Your task to perform on an android device: Search for apple airpods on newegg, select the first entry, and add it to the cart. Image 0: 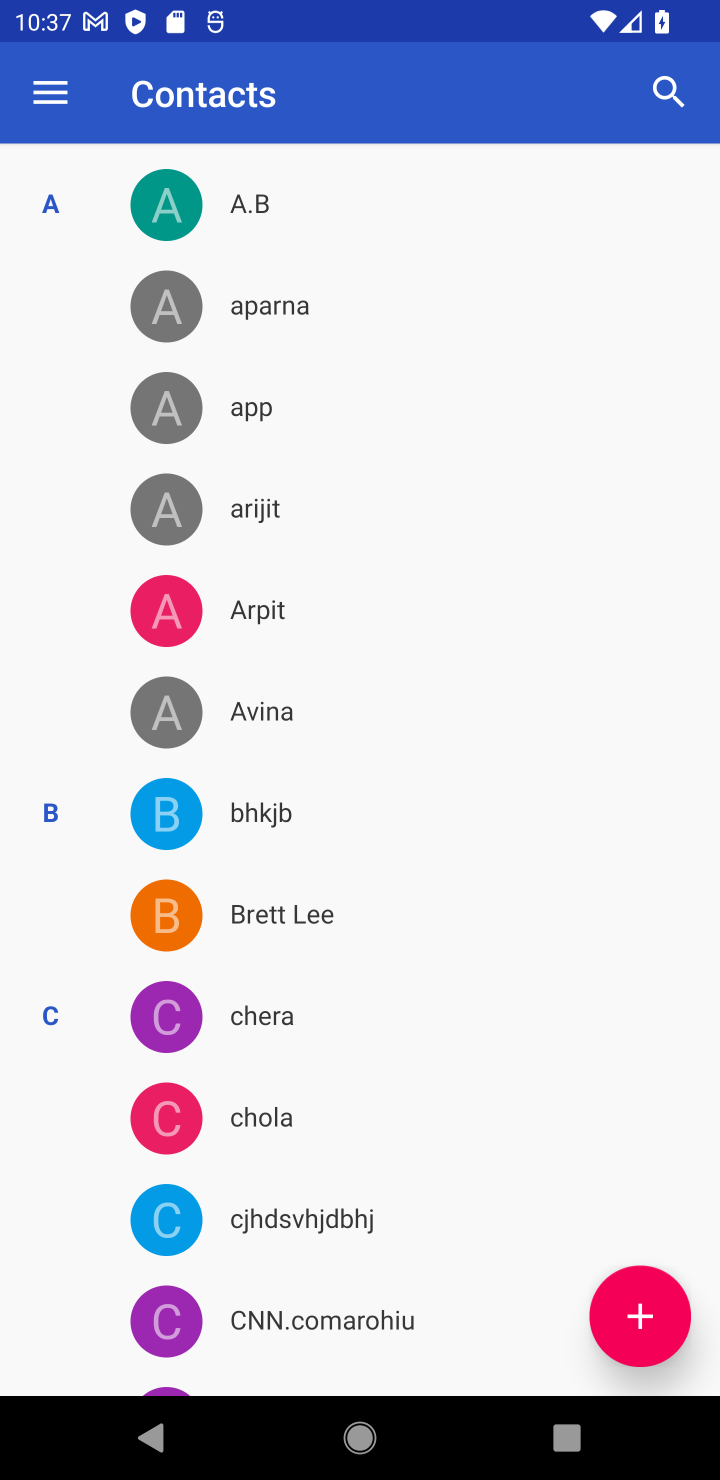
Step 0: press home button
Your task to perform on an android device: Search for apple airpods on newegg, select the first entry, and add it to the cart. Image 1: 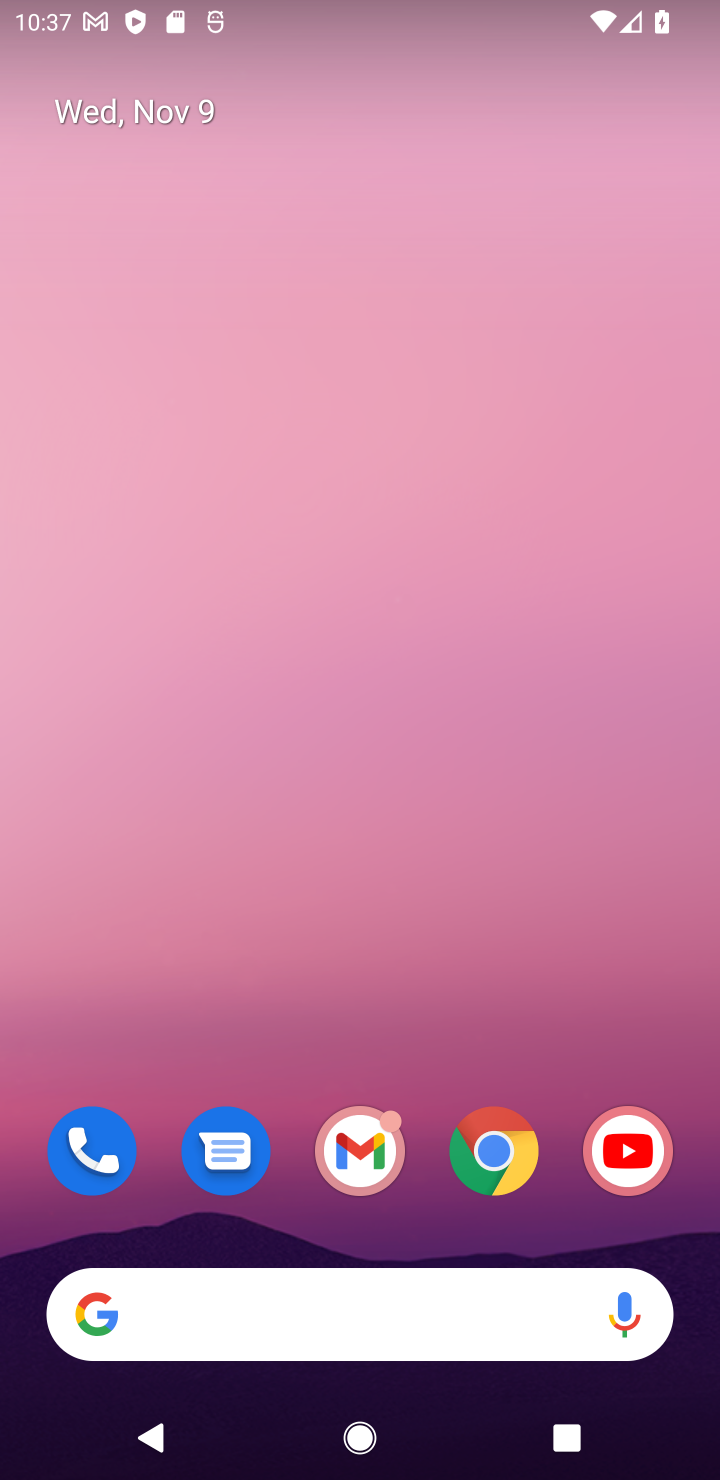
Step 1: click (506, 1160)
Your task to perform on an android device: Search for apple airpods on newegg, select the first entry, and add it to the cart. Image 2: 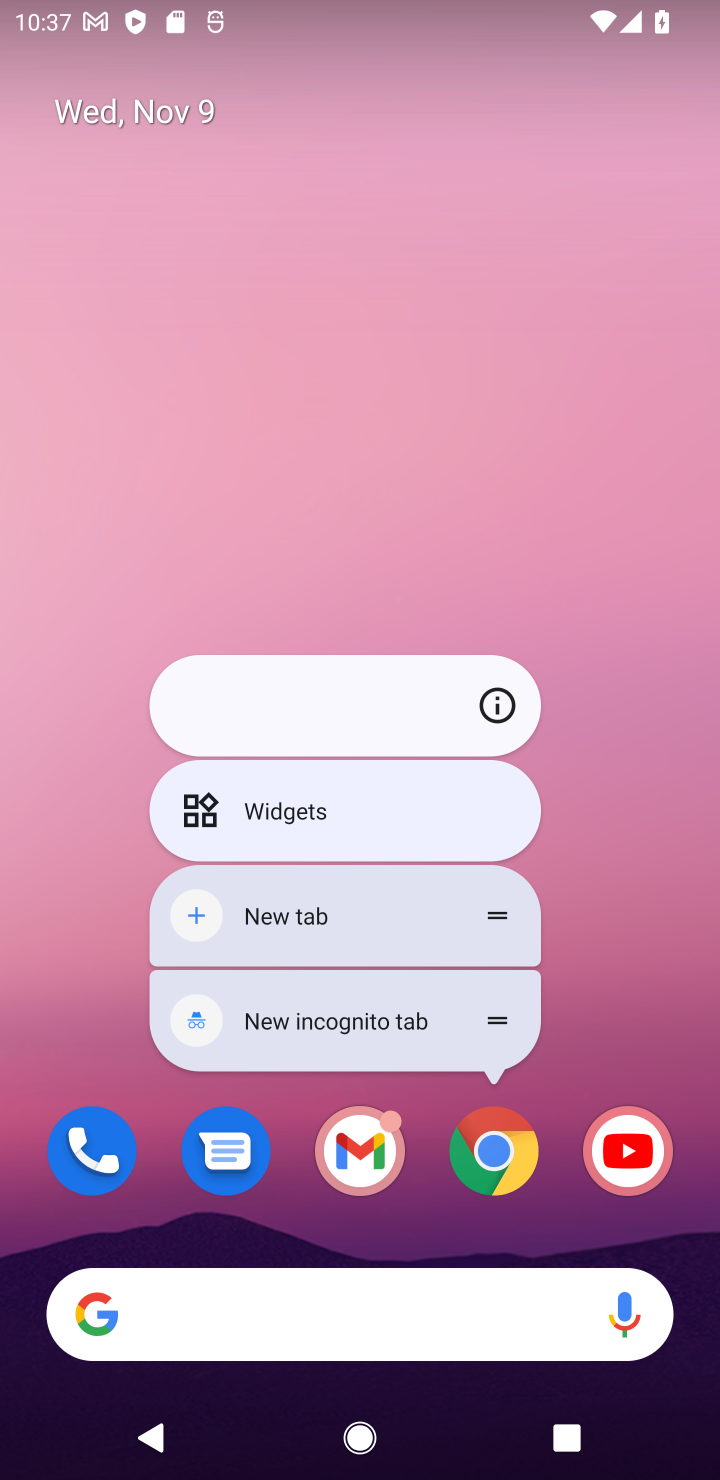
Step 2: click (506, 1160)
Your task to perform on an android device: Search for apple airpods on newegg, select the first entry, and add it to the cart. Image 3: 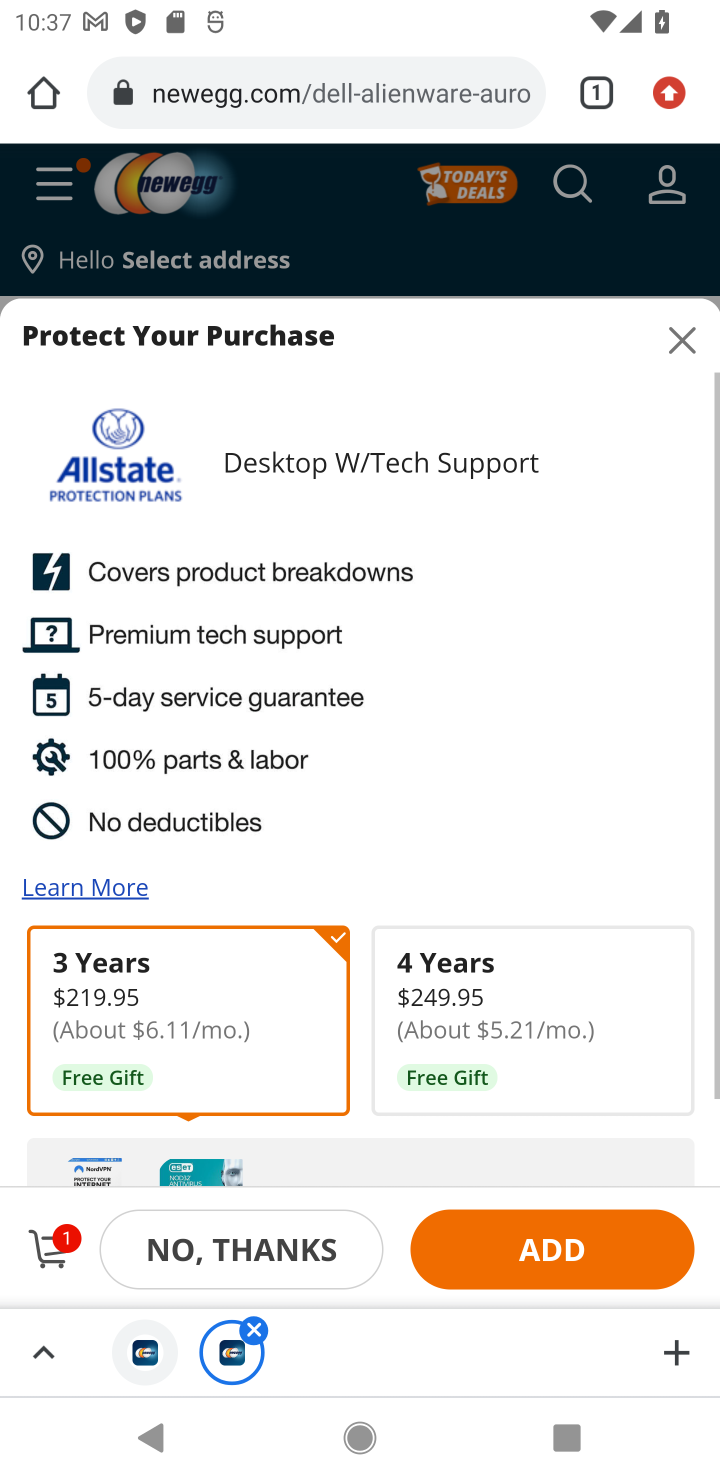
Step 3: click (678, 344)
Your task to perform on an android device: Search for apple airpods on newegg, select the first entry, and add it to the cart. Image 4: 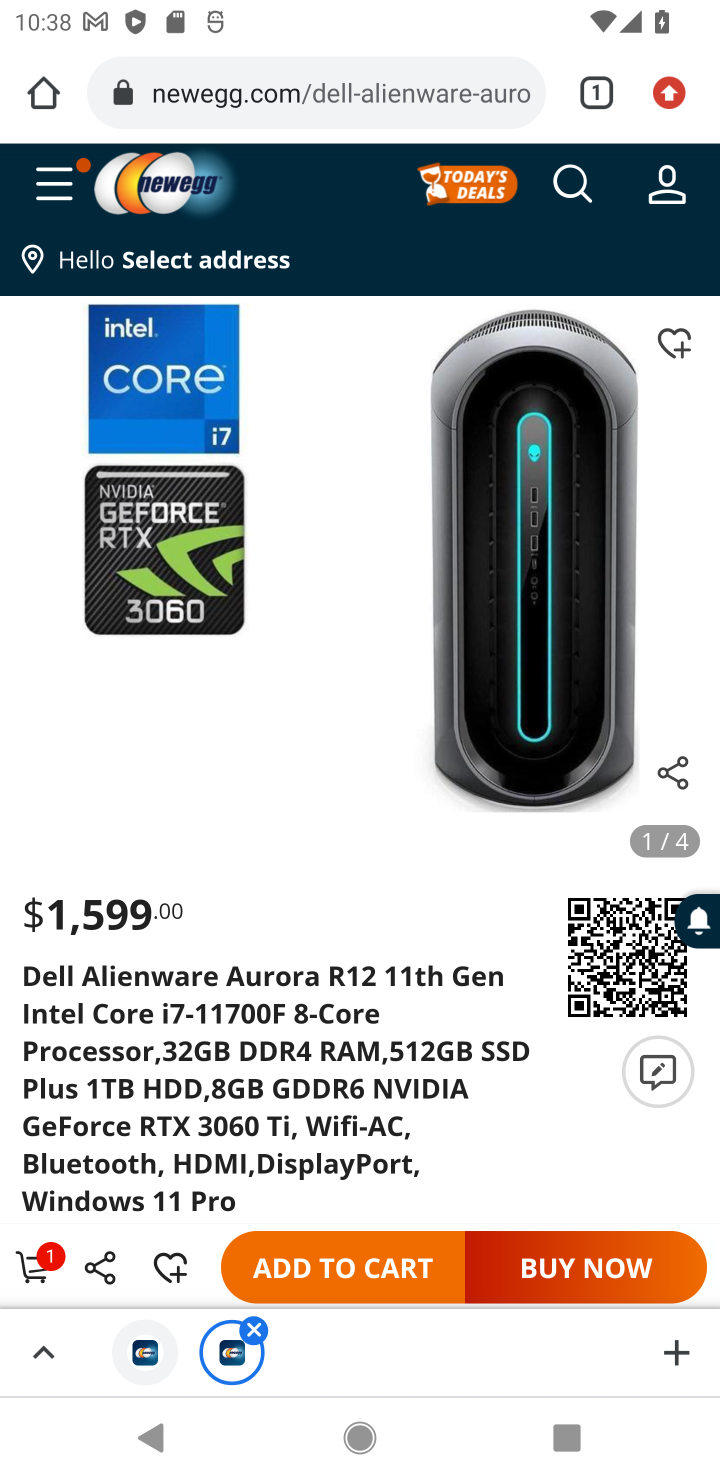
Step 4: click (573, 186)
Your task to perform on an android device: Search for apple airpods on newegg, select the first entry, and add it to the cart. Image 5: 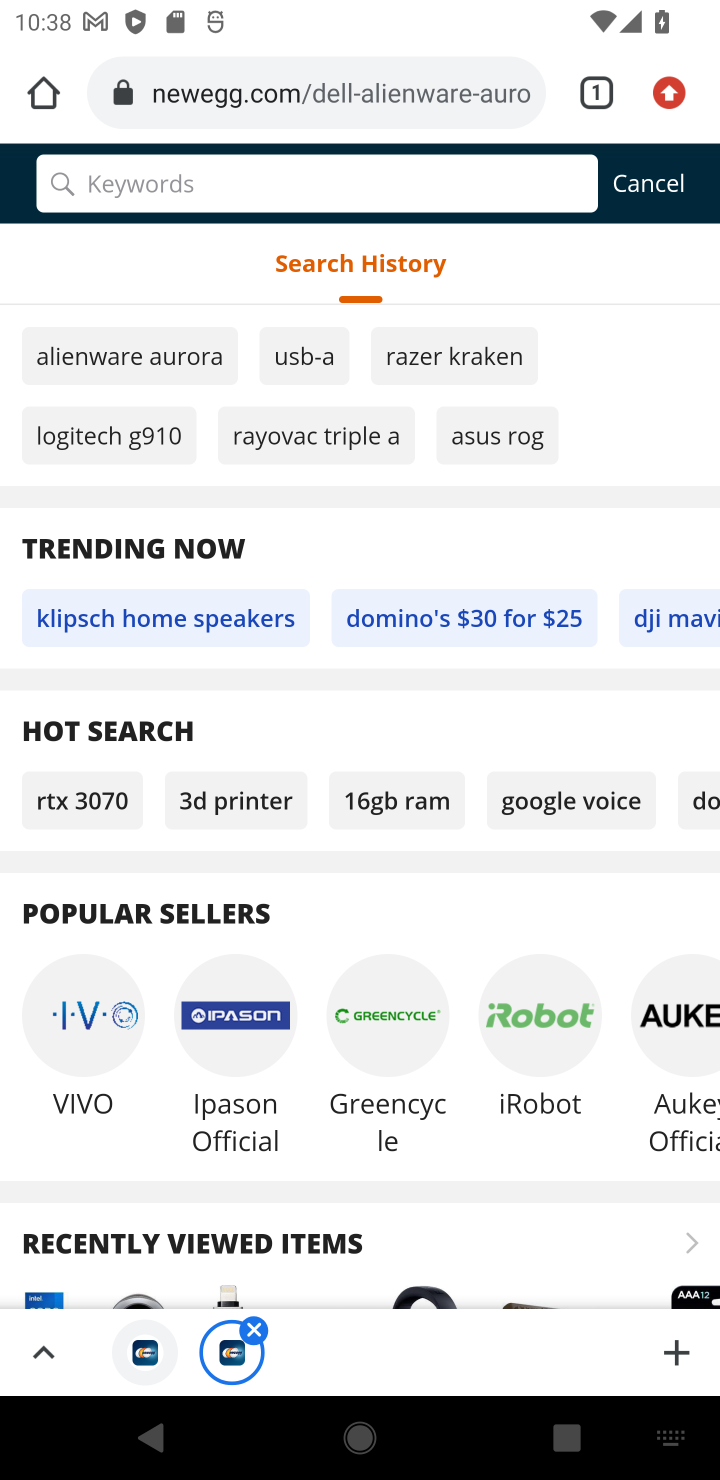
Step 5: type "apple airpods"
Your task to perform on an android device: Search for apple airpods on newegg, select the first entry, and add it to the cart. Image 6: 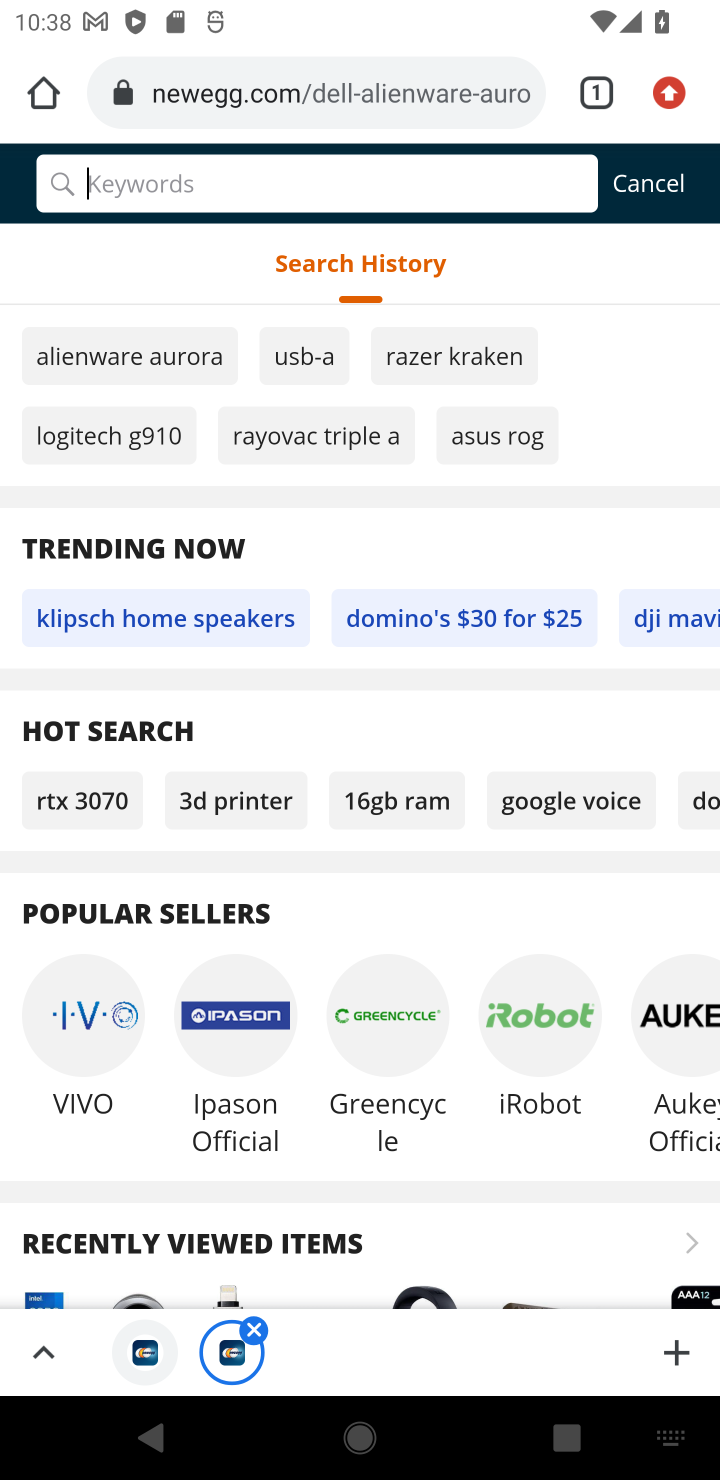
Step 6: press enter
Your task to perform on an android device: Search for apple airpods on newegg, select the first entry, and add it to the cart. Image 7: 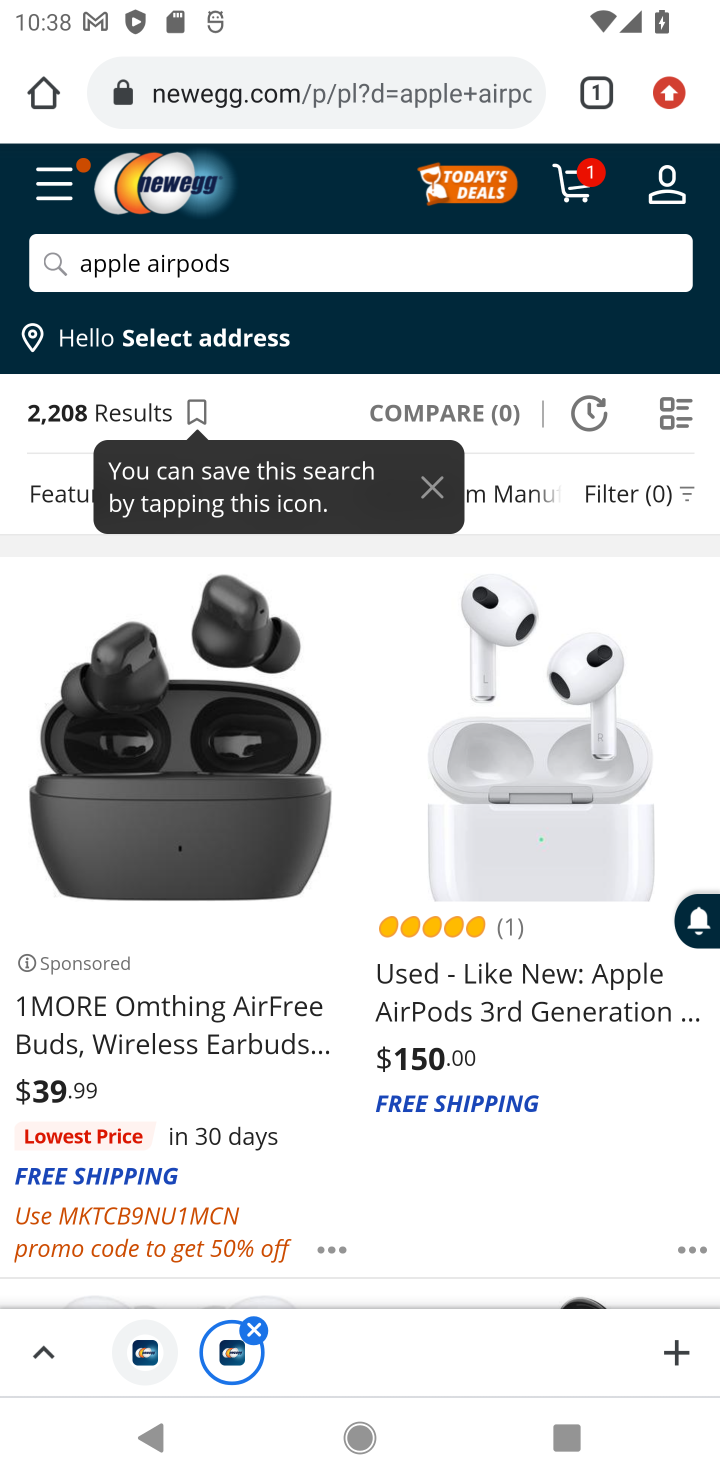
Step 7: drag from (500, 968) to (535, 650)
Your task to perform on an android device: Search for apple airpods on newegg, select the first entry, and add it to the cart. Image 8: 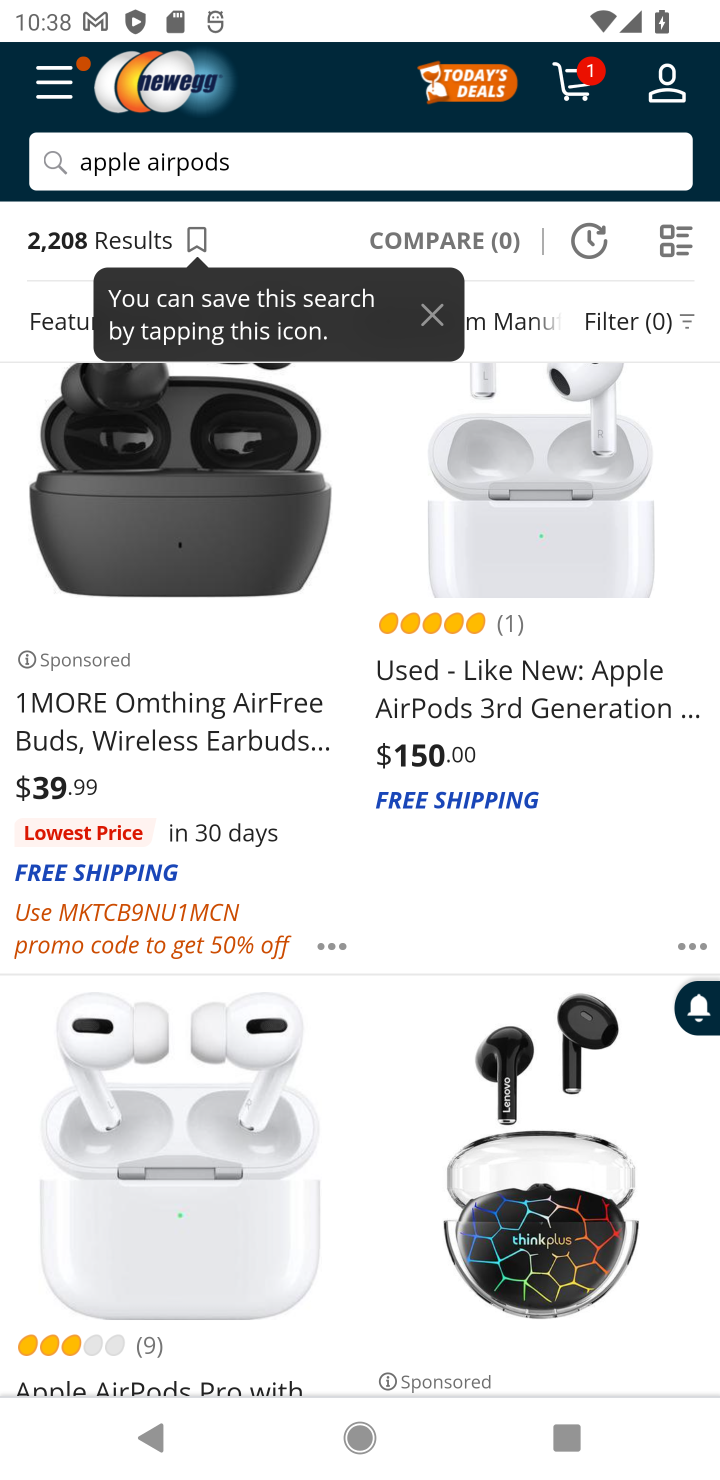
Step 8: drag from (507, 921) to (533, 639)
Your task to perform on an android device: Search for apple airpods on newegg, select the first entry, and add it to the cart. Image 9: 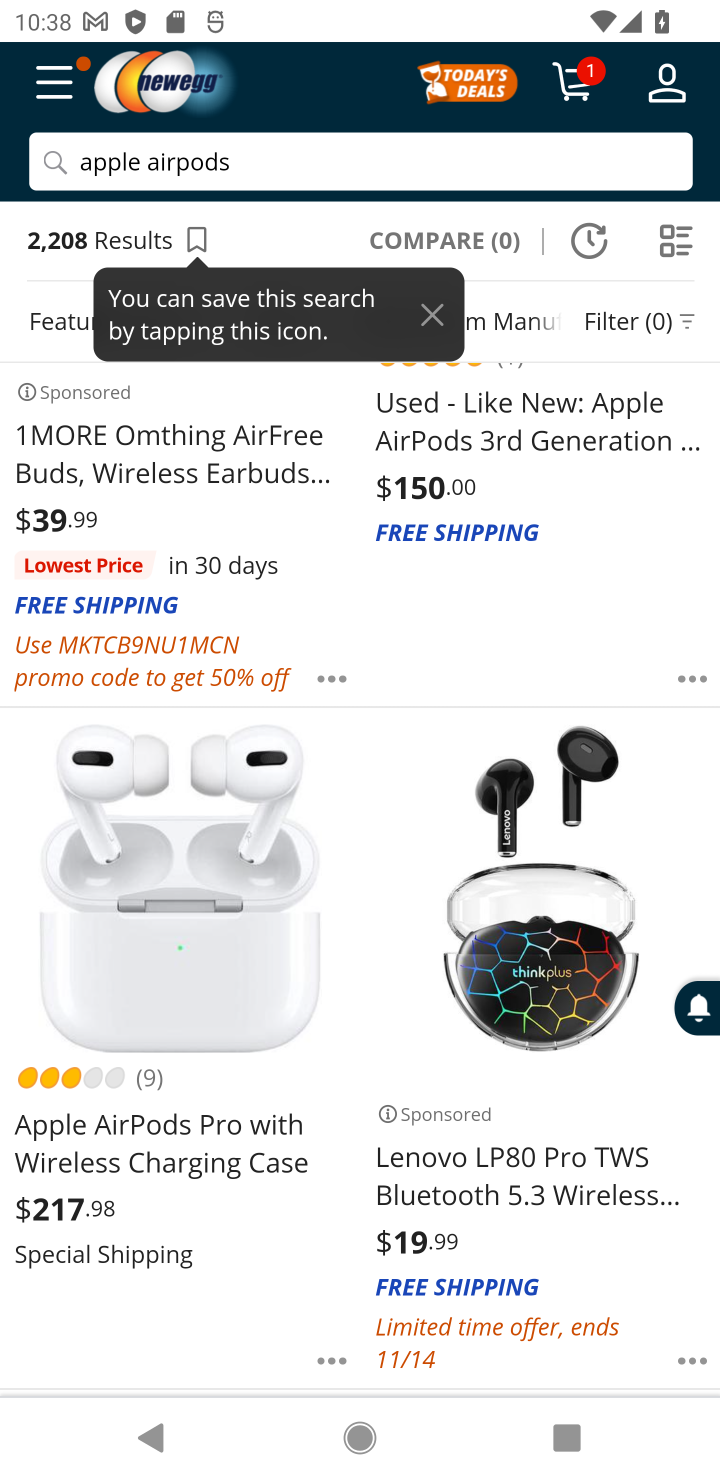
Step 9: click (173, 896)
Your task to perform on an android device: Search for apple airpods on newegg, select the first entry, and add it to the cart. Image 10: 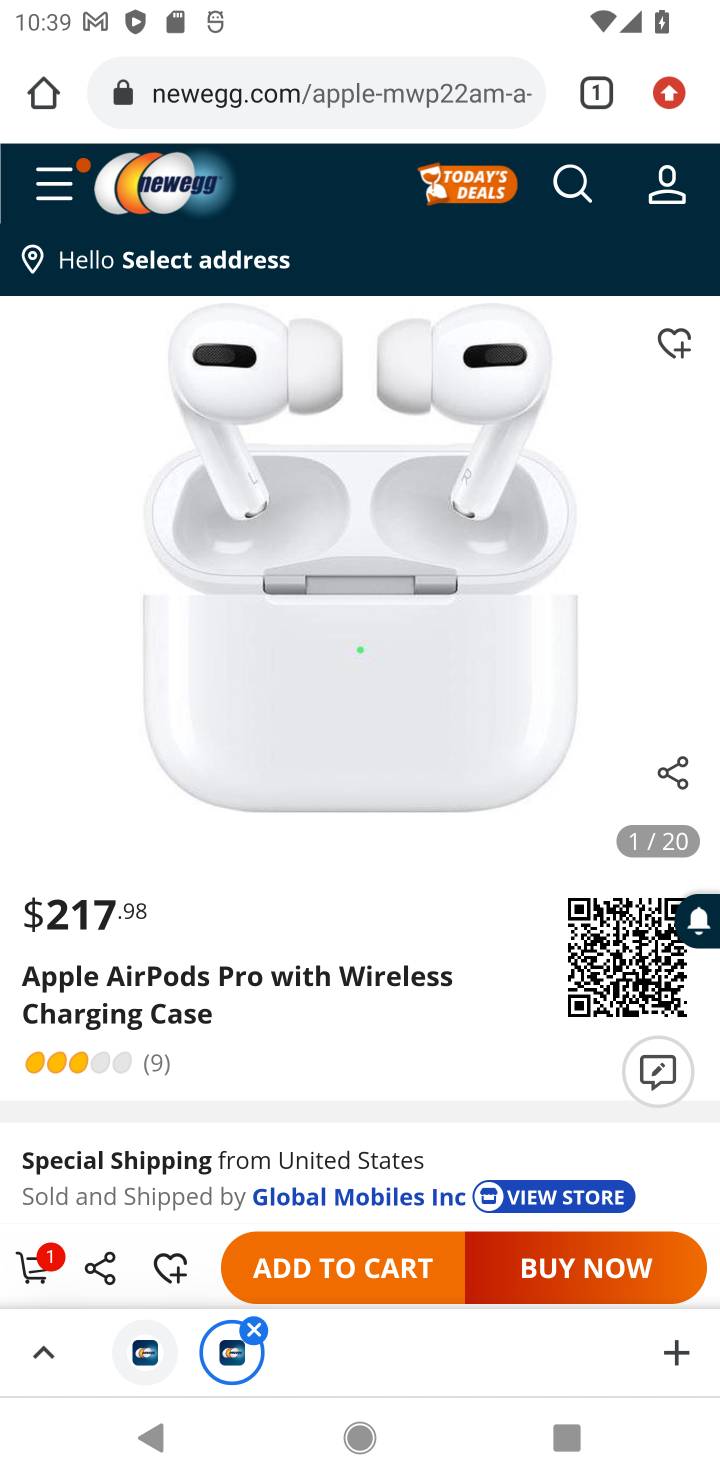
Step 10: click (355, 1254)
Your task to perform on an android device: Search for apple airpods on newegg, select the first entry, and add it to the cart. Image 11: 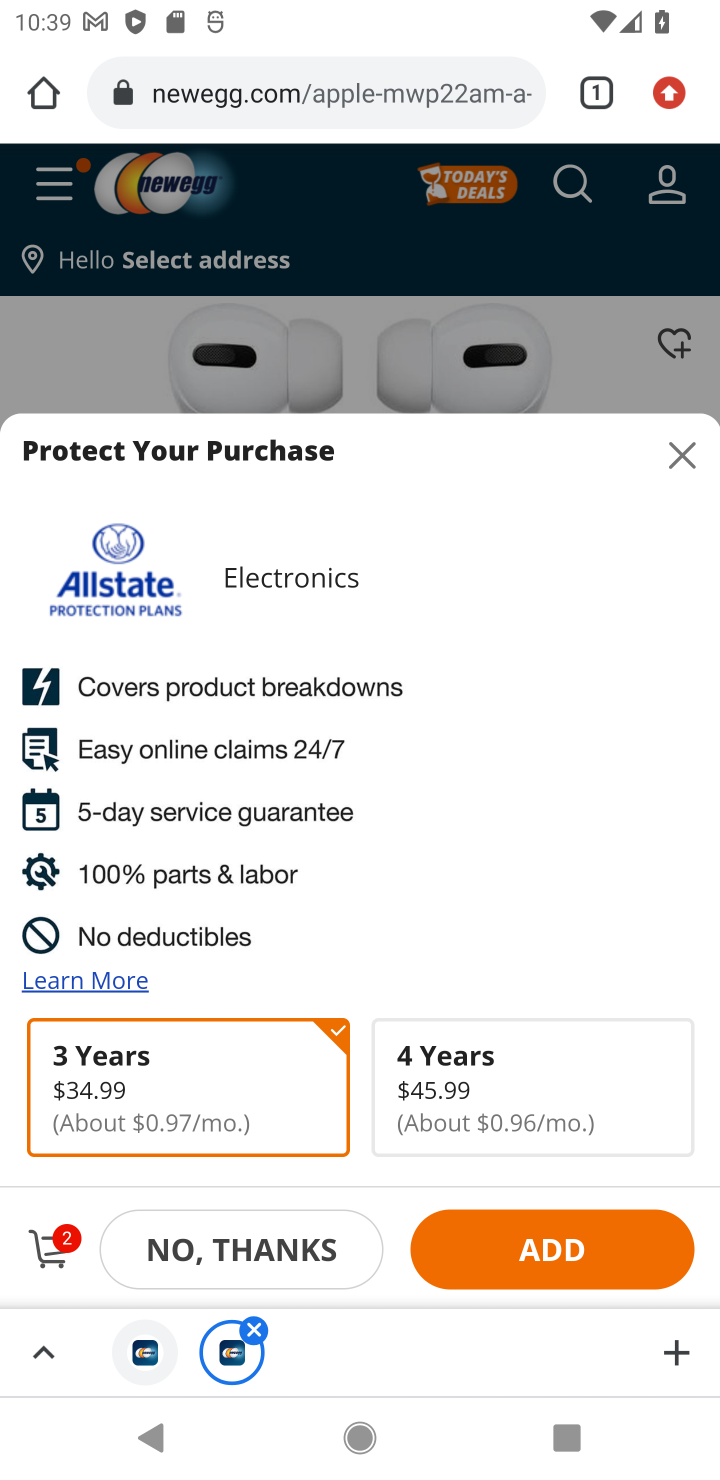
Step 11: click (689, 451)
Your task to perform on an android device: Search for apple airpods on newegg, select the first entry, and add it to the cart. Image 12: 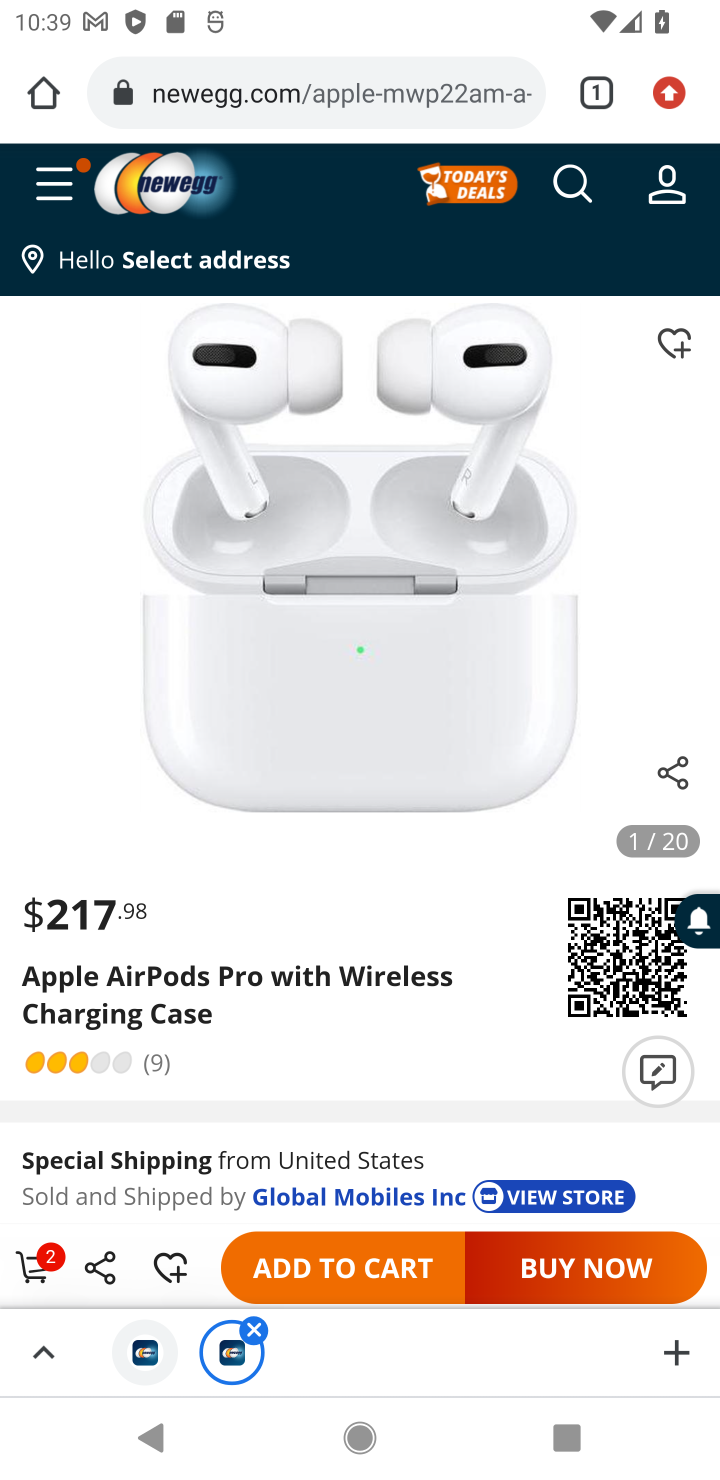
Step 12: click (26, 1276)
Your task to perform on an android device: Search for apple airpods on newegg, select the first entry, and add it to the cart. Image 13: 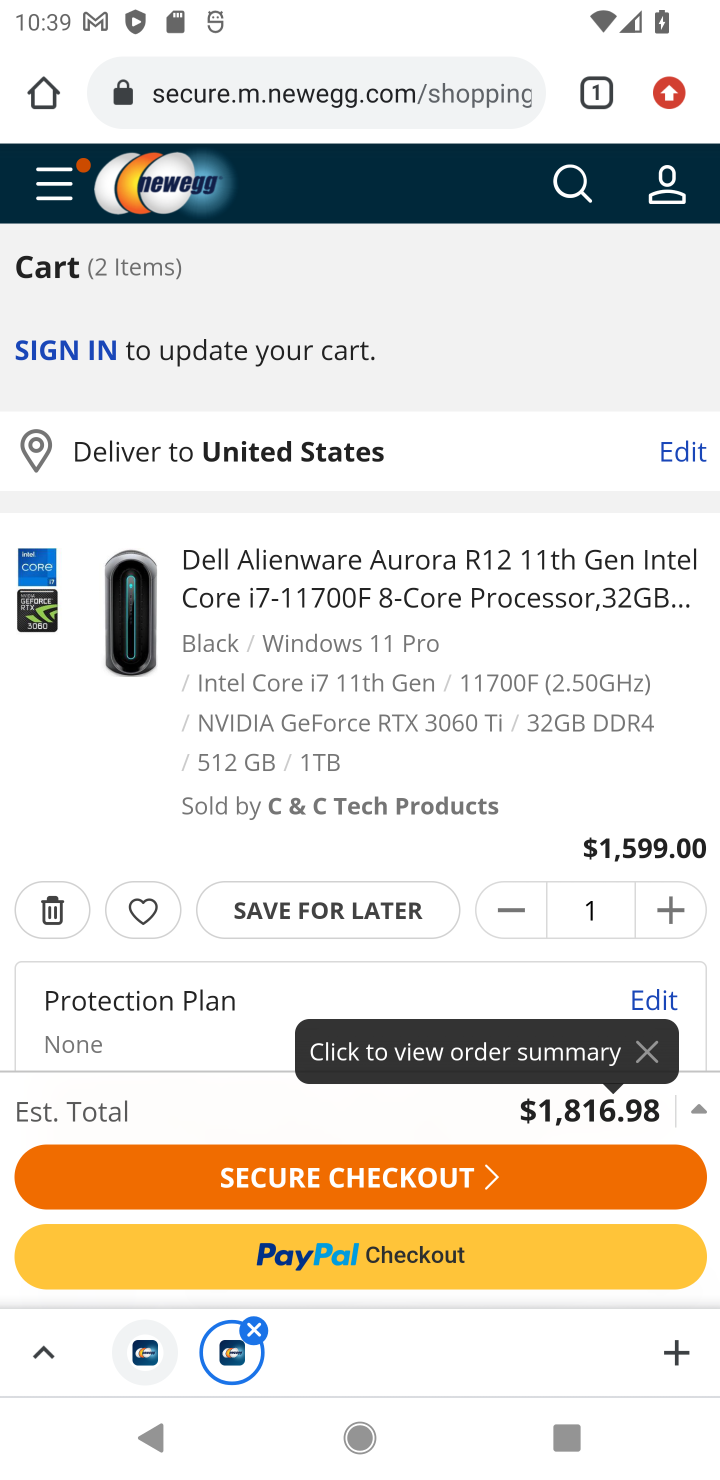
Step 13: press back button
Your task to perform on an android device: Search for apple airpods on newegg, select the first entry, and add it to the cart. Image 14: 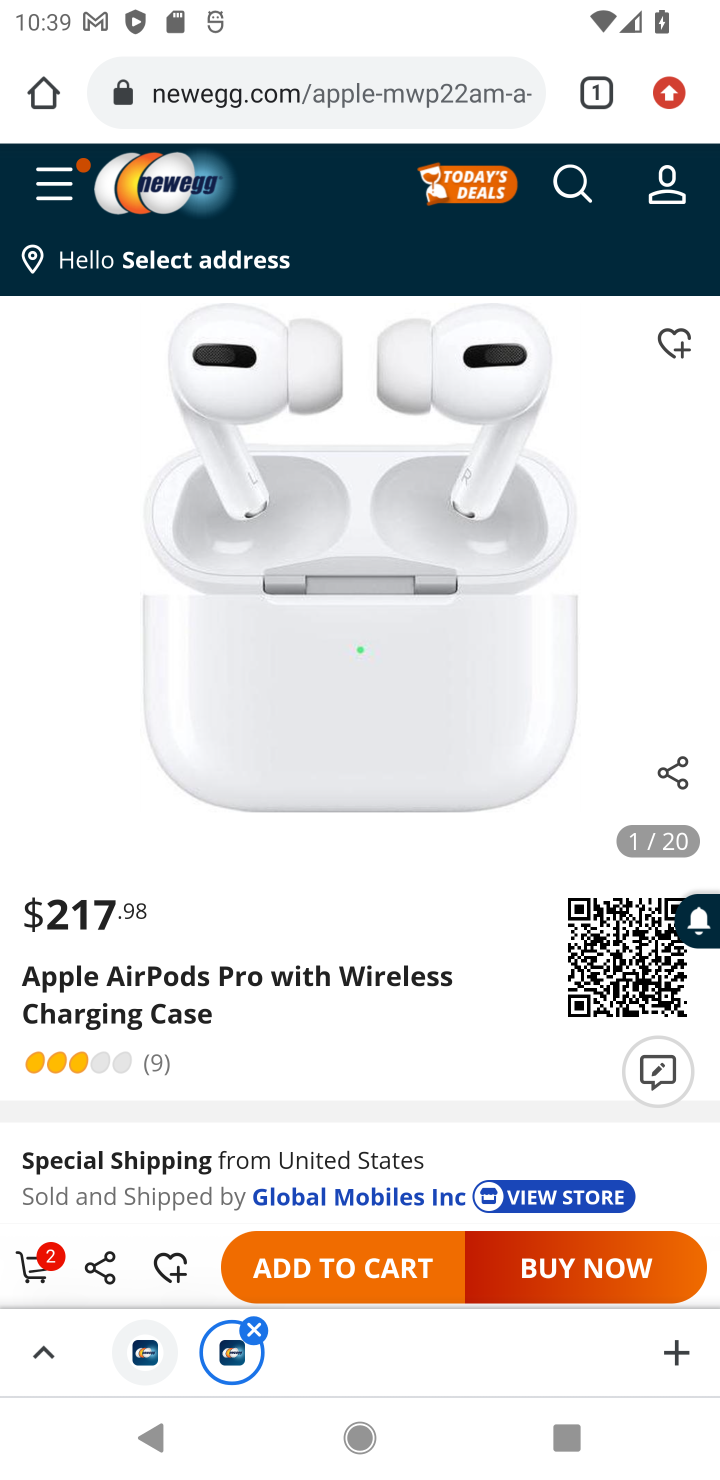
Step 14: click (333, 1275)
Your task to perform on an android device: Search for apple airpods on newegg, select the first entry, and add it to the cart. Image 15: 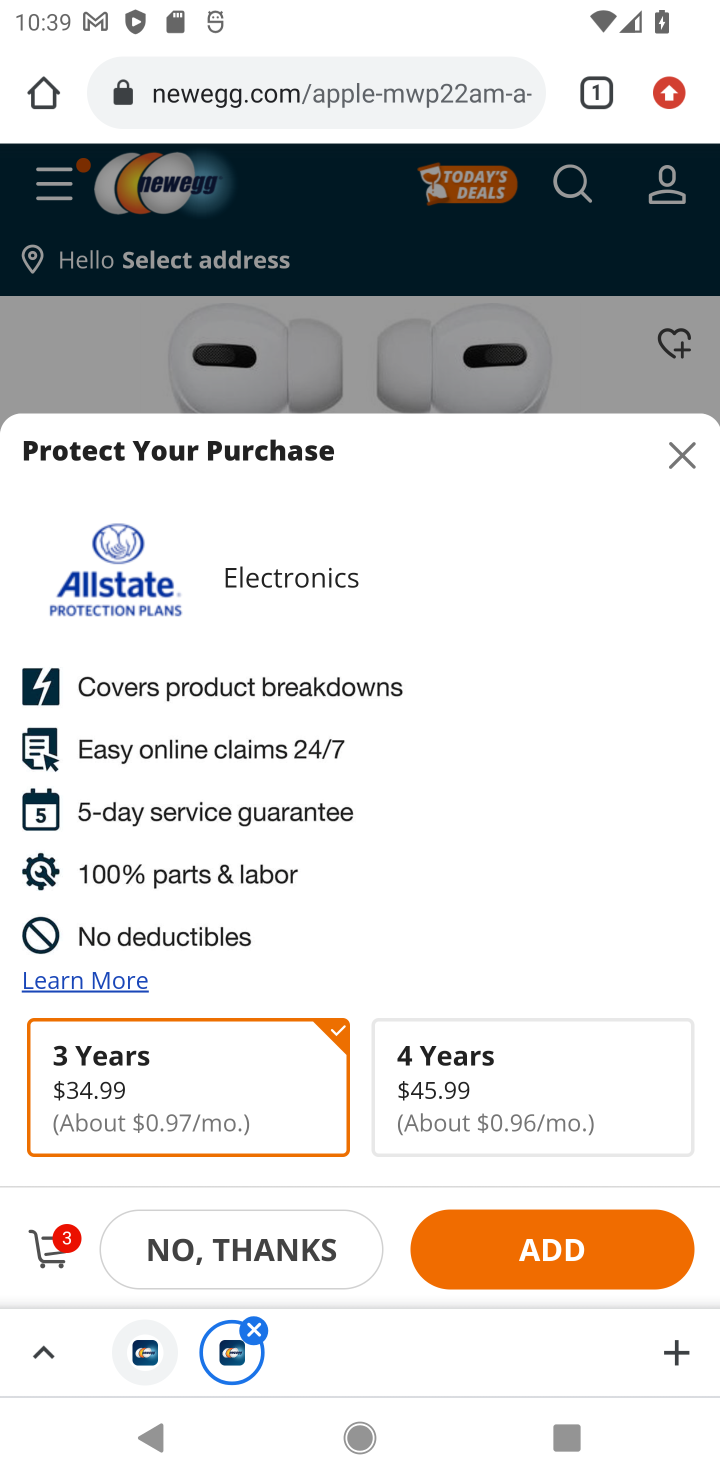
Step 15: task complete